Your task to perform on an android device: Show me recent news Image 0: 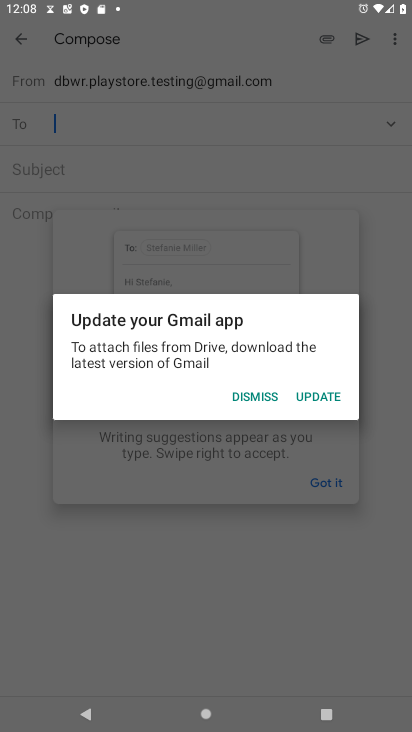
Step 0: press home button
Your task to perform on an android device: Show me recent news Image 1: 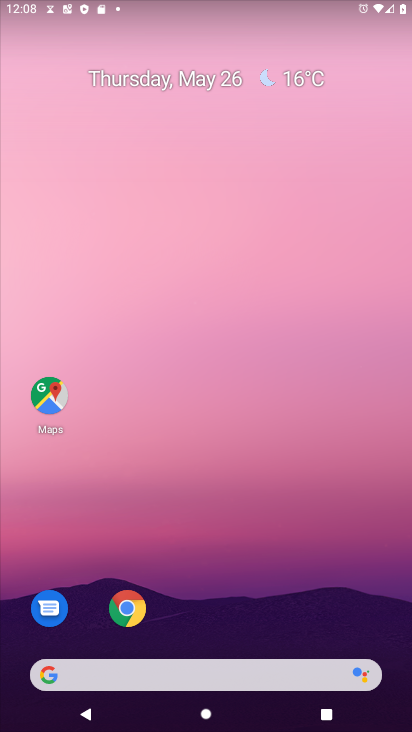
Step 1: task complete